Your task to perform on an android device: Show me the alarms in the clock app Image 0: 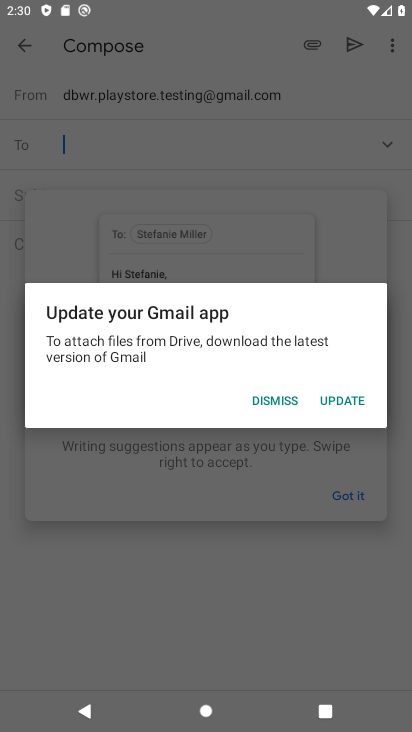
Step 0: press home button
Your task to perform on an android device: Show me the alarms in the clock app Image 1: 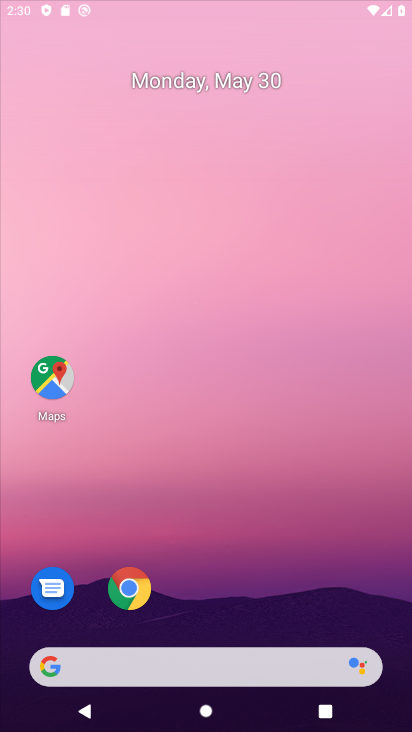
Step 1: drag from (243, 659) to (217, 300)
Your task to perform on an android device: Show me the alarms in the clock app Image 2: 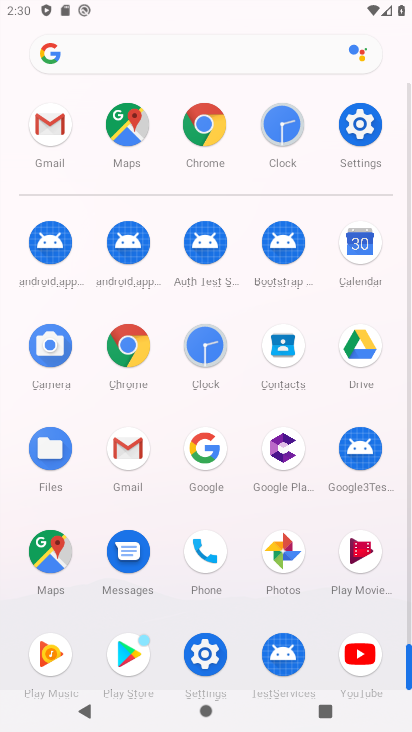
Step 2: click (198, 334)
Your task to perform on an android device: Show me the alarms in the clock app Image 3: 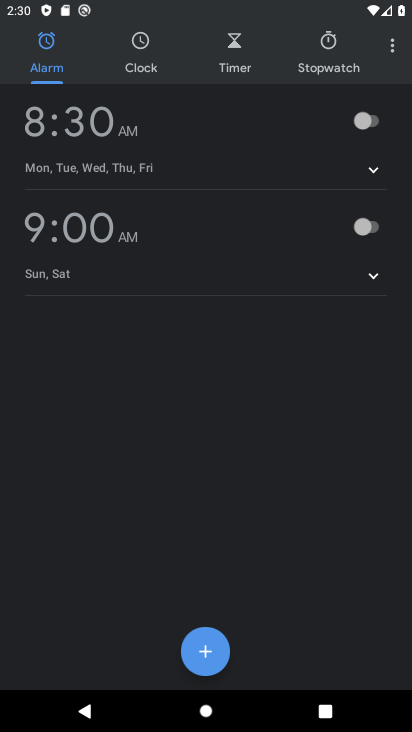
Step 3: click (65, 67)
Your task to perform on an android device: Show me the alarms in the clock app Image 4: 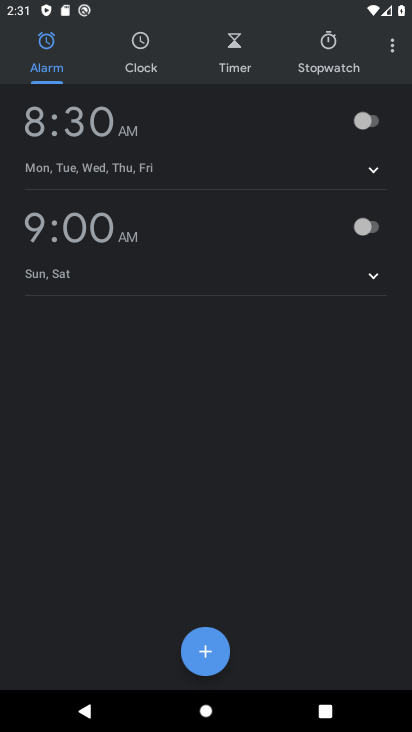
Step 4: task complete